Your task to perform on an android device: turn off javascript in the chrome app Image 0: 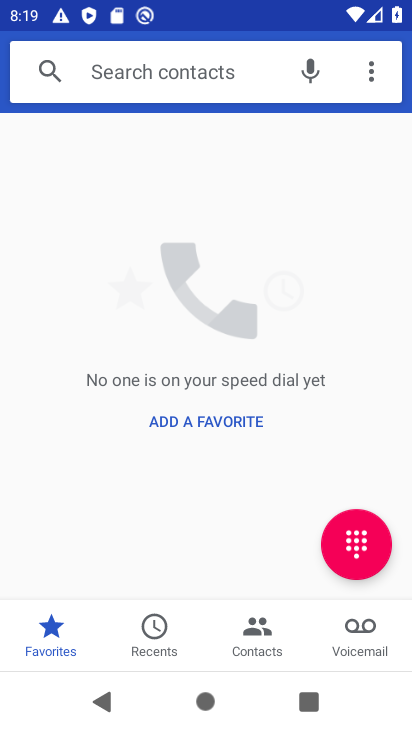
Step 0: click (270, 510)
Your task to perform on an android device: turn off javascript in the chrome app Image 1: 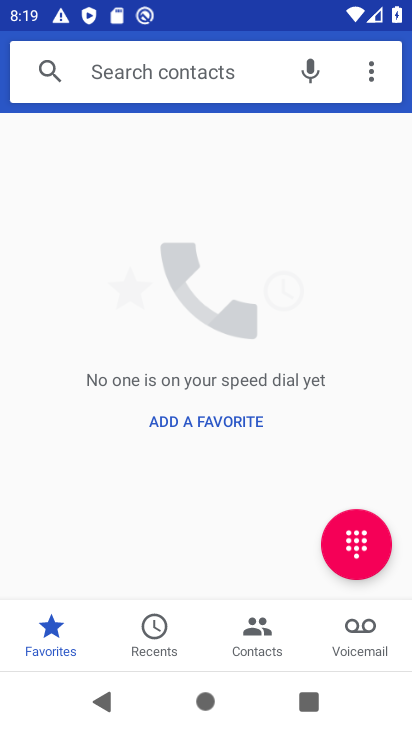
Step 1: press back button
Your task to perform on an android device: turn off javascript in the chrome app Image 2: 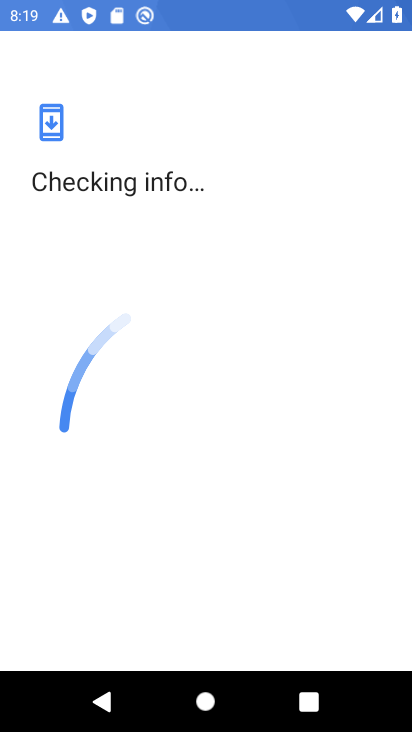
Step 2: press home button
Your task to perform on an android device: turn off javascript in the chrome app Image 3: 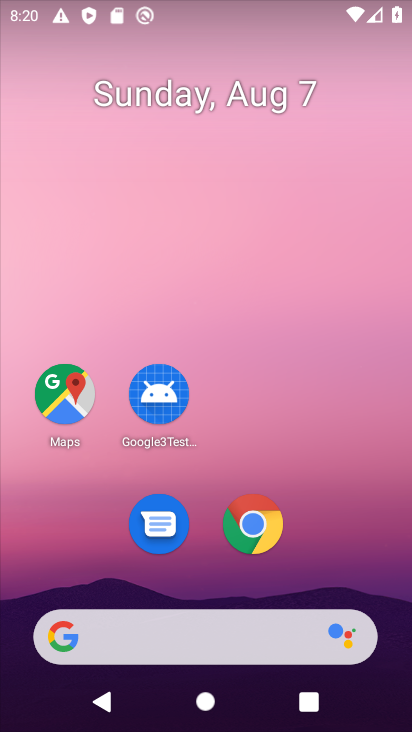
Step 3: click (249, 538)
Your task to perform on an android device: turn off javascript in the chrome app Image 4: 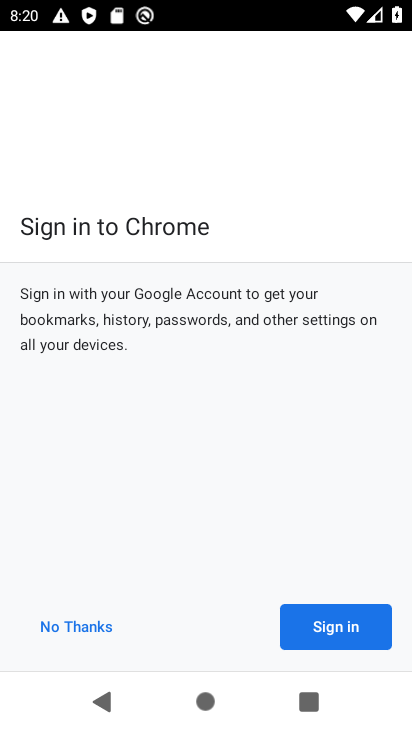
Step 4: click (123, 614)
Your task to perform on an android device: turn off javascript in the chrome app Image 5: 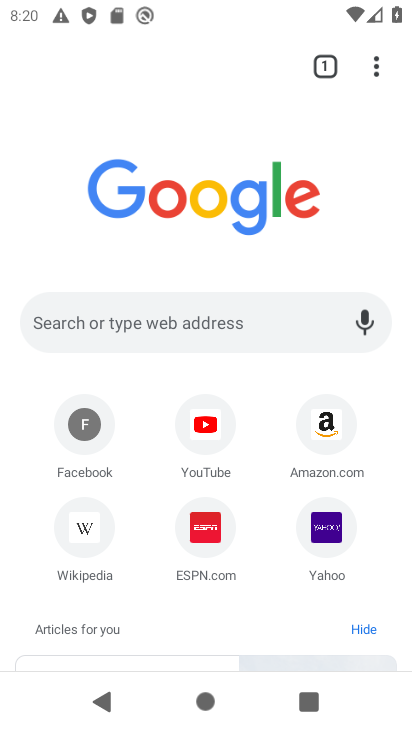
Step 5: click (378, 73)
Your task to perform on an android device: turn off javascript in the chrome app Image 6: 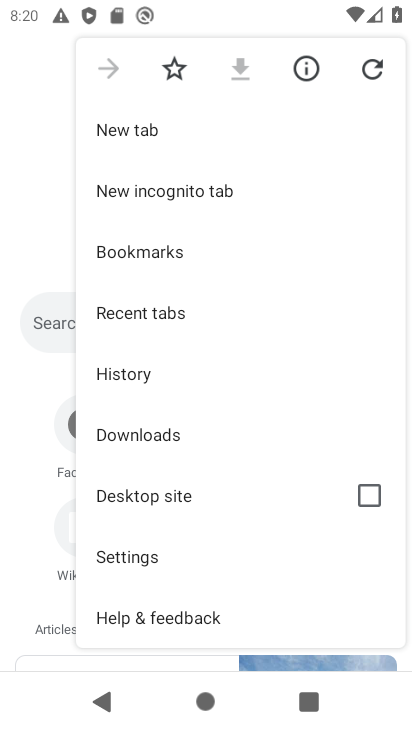
Step 6: click (132, 528)
Your task to perform on an android device: turn off javascript in the chrome app Image 7: 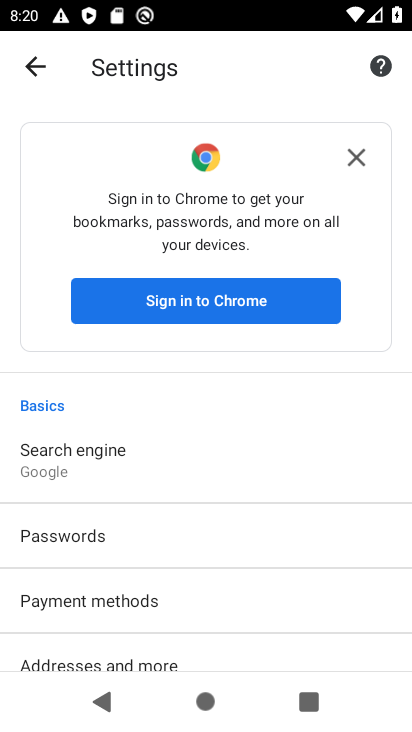
Step 7: drag from (132, 528) to (129, 102)
Your task to perform on an android device: turn off javascript in the chrome app Image 8: 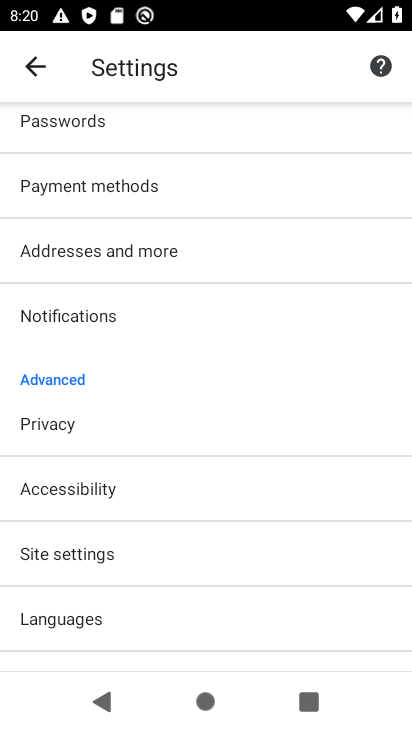
Step 8: click (119, 543)
Your task to perform on an android device: turn off javascript in the chrome app Image 9: 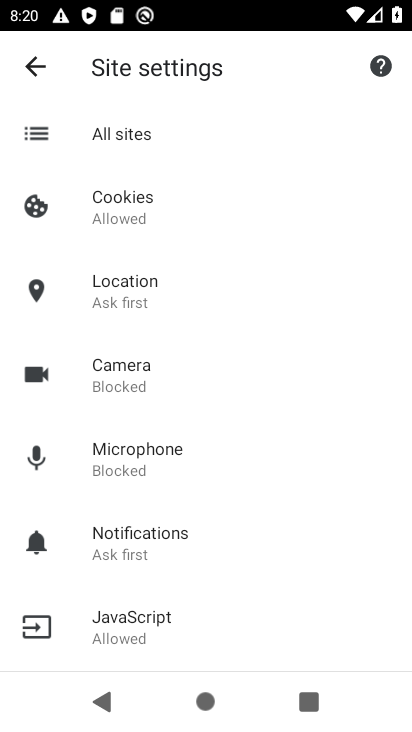
Step 9: click (113, 613)
Your task to perform on an android device: turn off javascript in the chrome app Image 10: 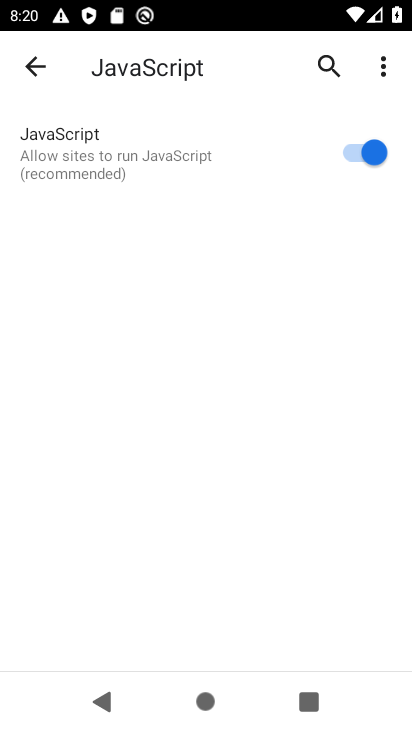
Step 10: click (353, 150)
Your task to perform on an android device: turn off javascript in the chrome app Image 11: 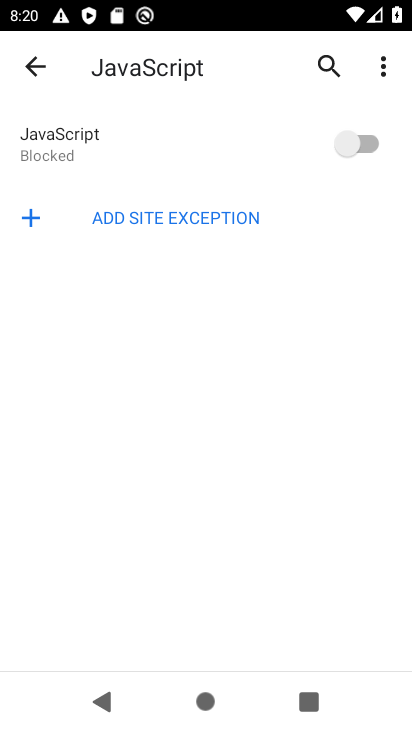
Step 11: task complete